Your task to perform on an android device: Go to notification settings Image 0: 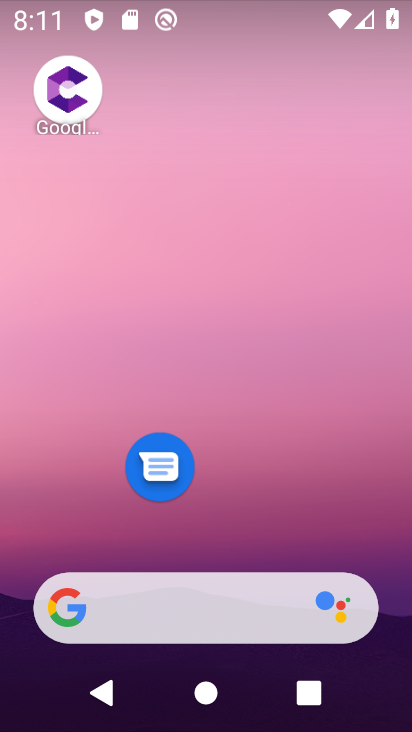
Step 0: drag from (214, 529) to (210, 172)
Your task to perform on an android device: Go to notification settings Image 1: 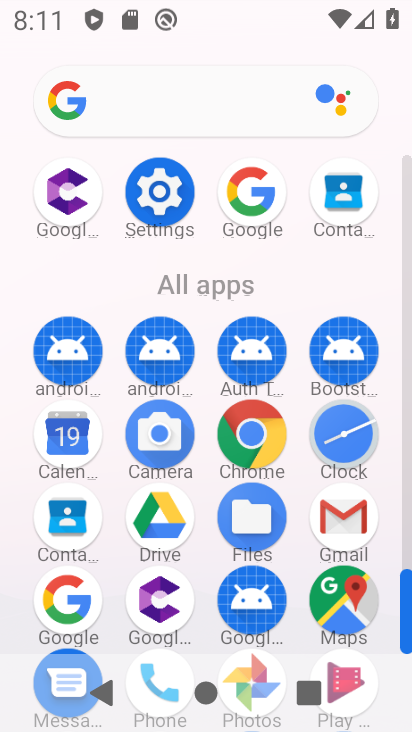
Step 1: click (157, 190)
Your task to perform on an android device: Go to notification settings Image 2: 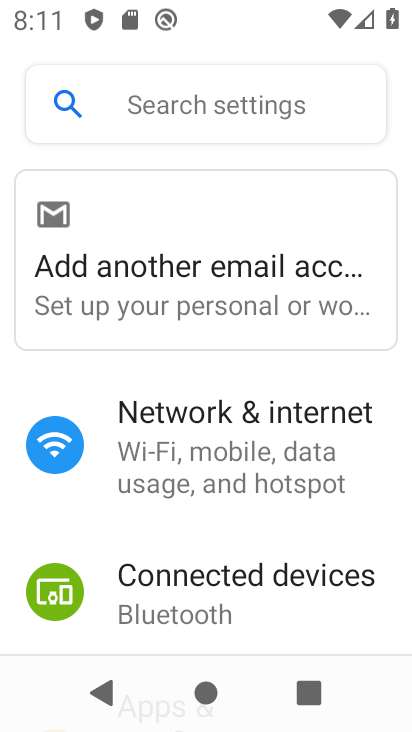
Step 2: drag from (246, 610) to (184, 126)
Your task to perform on an android device: Go to notification settings Image 3: 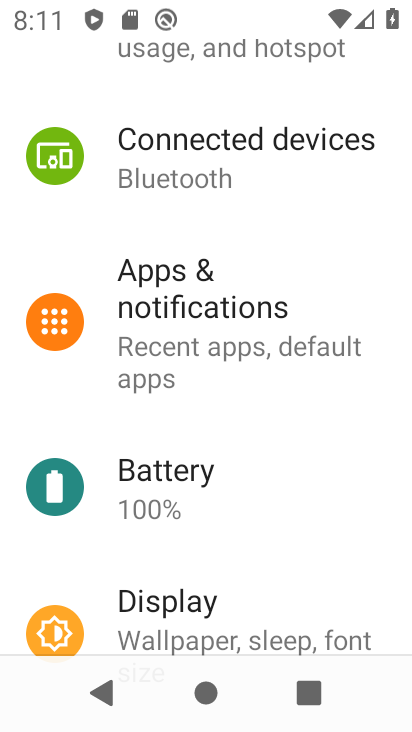
Step 3: click (216, 313)
Your task to perform on an android device: Go to notification settings Image 4: 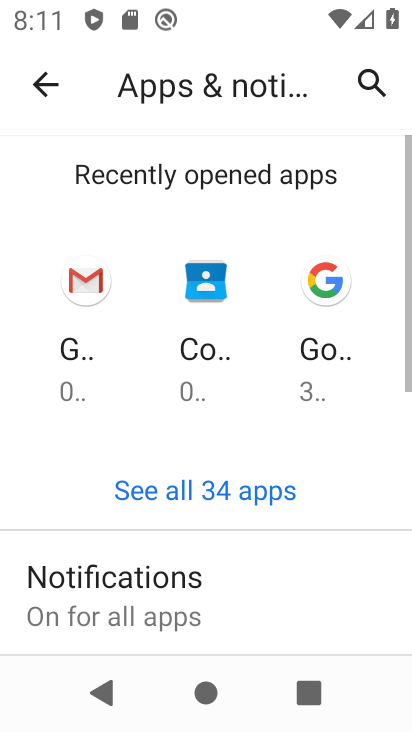
Step 4: click (173, 608)
Your task to perform on an android device: Go to notification settings Image 5: 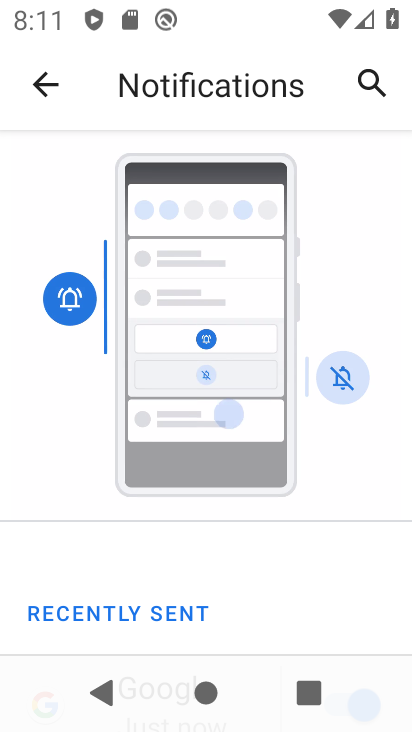
Step 5: task complete